Your task to perform on an android device: Open Chrome and go to the settings page Image 0: 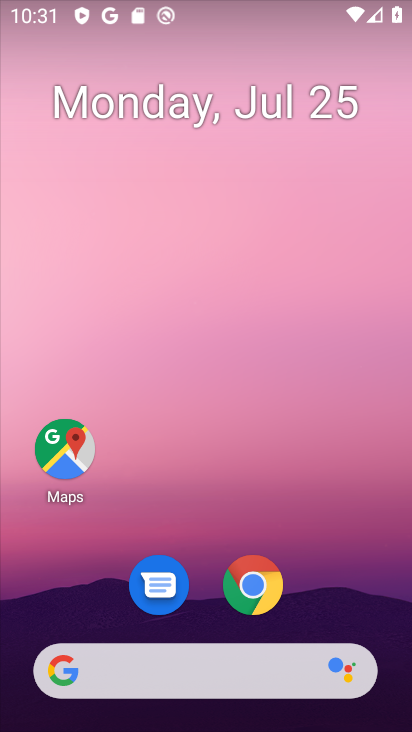
Step 0: click (259, 584)
Your task to perform on an android device: Open Chrome and go to the settings page Image 1: 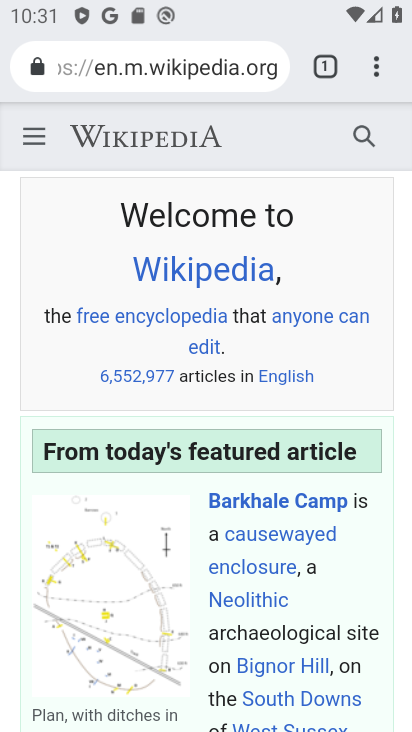
Step 1: click (376, 66)
Your task to perform on an android device: Open Chrome and go to the settings page Image 2: 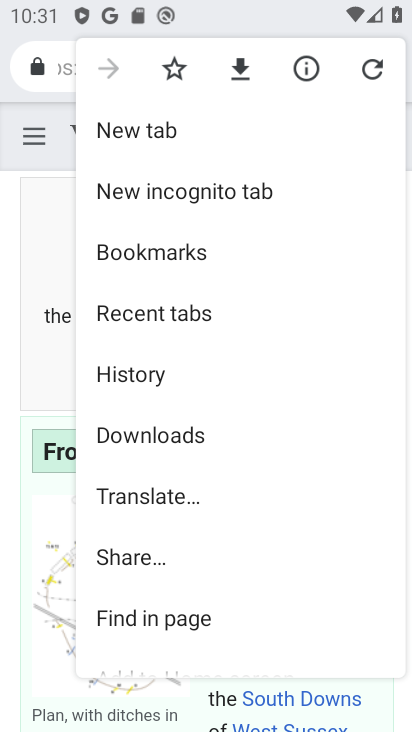
Step 2: drag from (243, 508) to (255, 162)
Your task to perform on an android device: Open Chrome and go to the settings page Image 3: 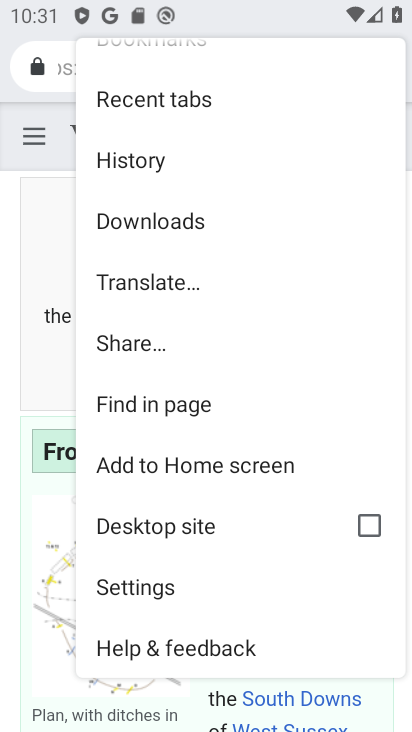
Step 3: click (157, 577)
Your task to perform on an android device: Open Chrome and go to the settings page Image 4: 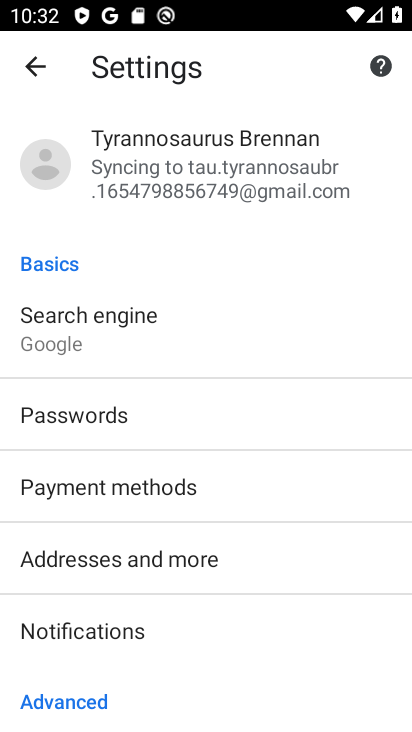
Step 4: task complete